Your task to perform on an android device: Open Google Maps and go to "Timeline" Image 0: 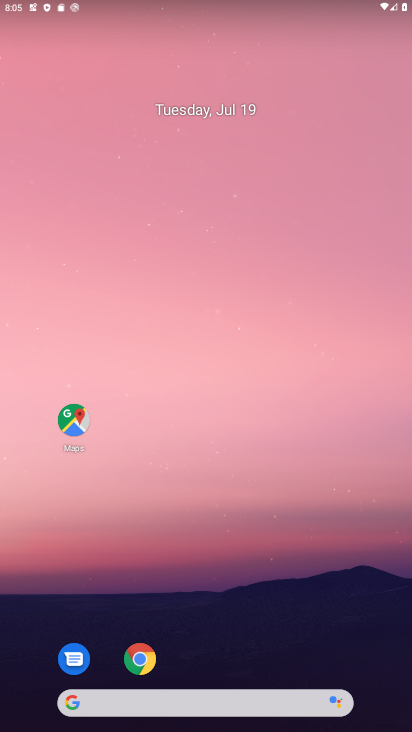
Step 0: click (86, 424)
Your task to perform on an android device: Open Google Maps and go to "Timeline" Image 1: 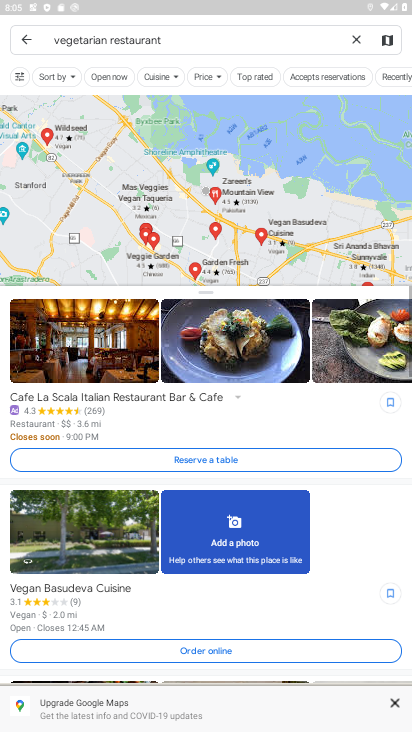
Step 1: click (20, 39)
Your task to perform on an android device: Open Google Maps and go to "Timeline" Image 2: 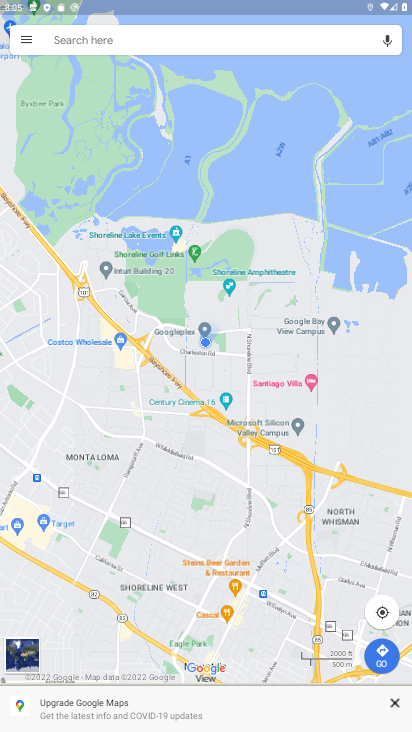
Step 2: click (22, 40)
Your task to perform on an android device: Open Google Maps and go to "Timeline" Image 3: 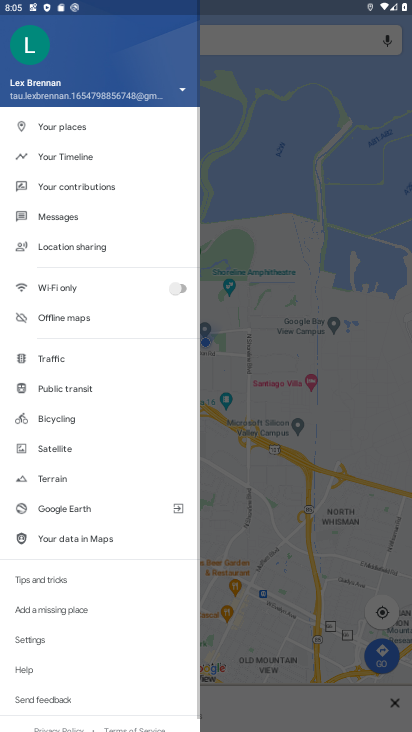
Step 3: click (67, 154)
Your task to perform on an android device: Open Google Maps and go to "Timeline" Image 4: 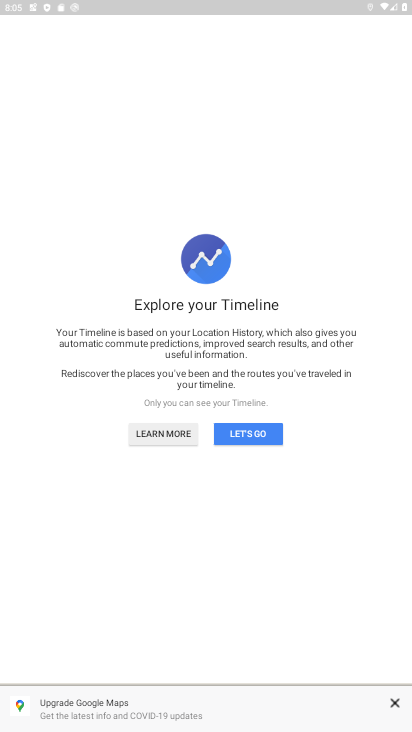
Step 4: click (266, 430)
Your task to perform on an android device: Open Google Maps and go to "Timeline" Image 5: 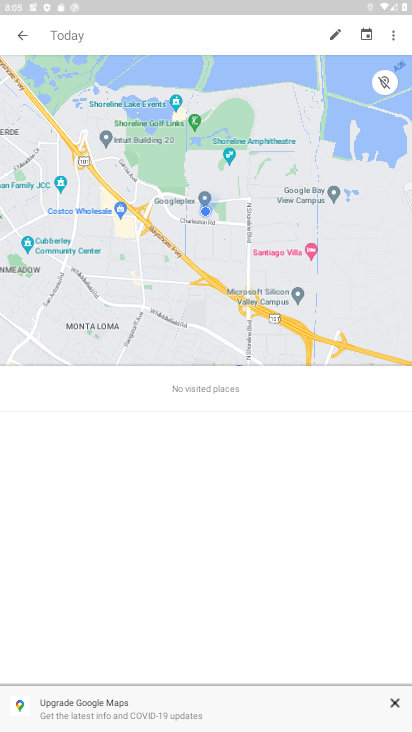
Step 5: task complete